Your task to perform on an android device: When is my next meeting? Image 0: 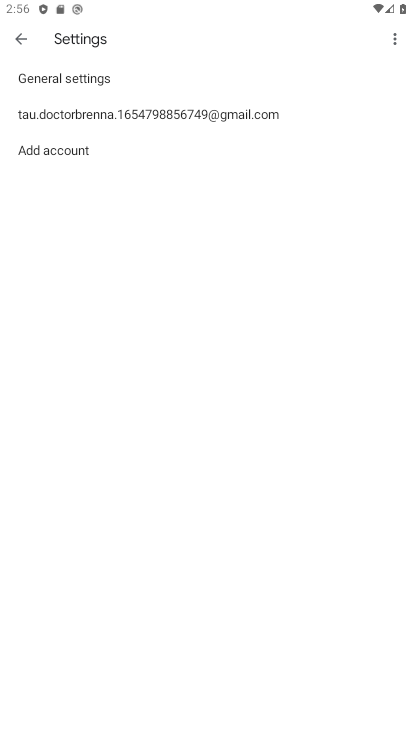
Step 0: press home button
Your task to perform on an android device: When is my next meeting? Image 1: 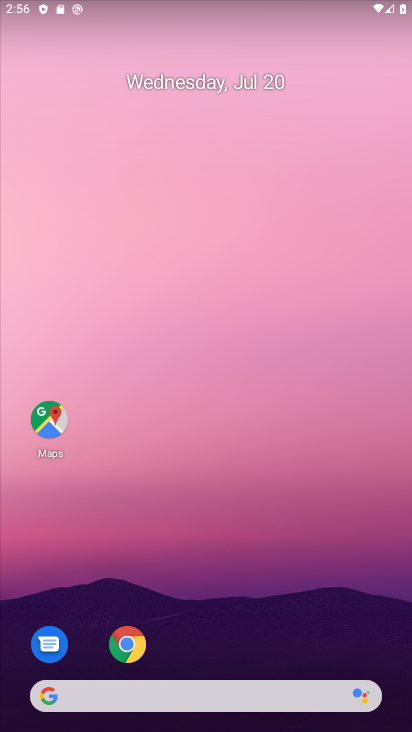
Step 1: drag from (216, 517) to (216, 255)
Your task to perform on an android device: When is my next meeting? Image 2: 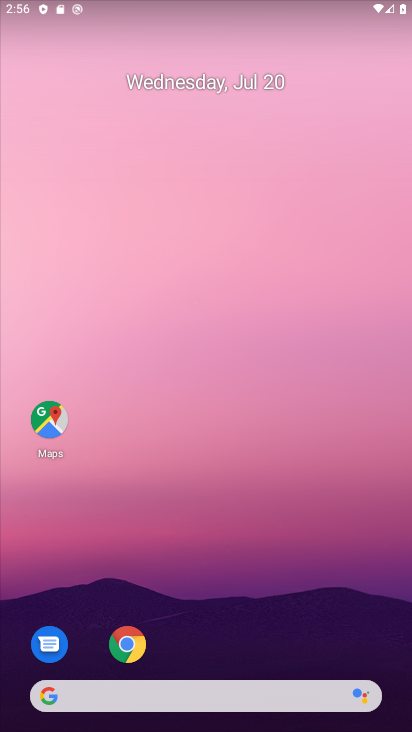
Step 2: drag from (240, 607) to (240, 205)
Your task to perform on an android device: When is my next meeting? Image 3: 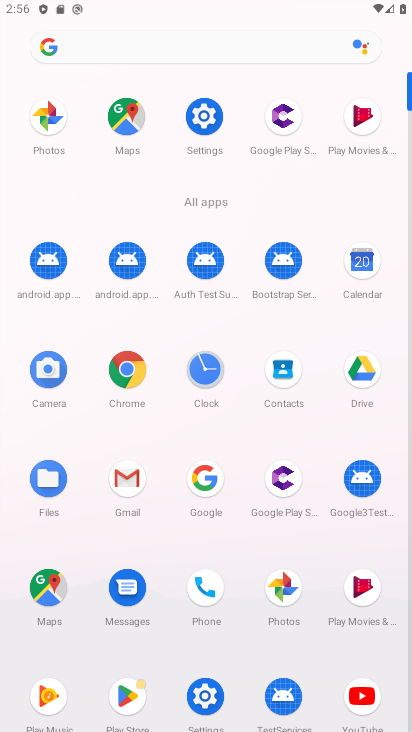
Step 3: click (362, 270)
Your task to perform on an android device: When is my next meeting? Image 4: 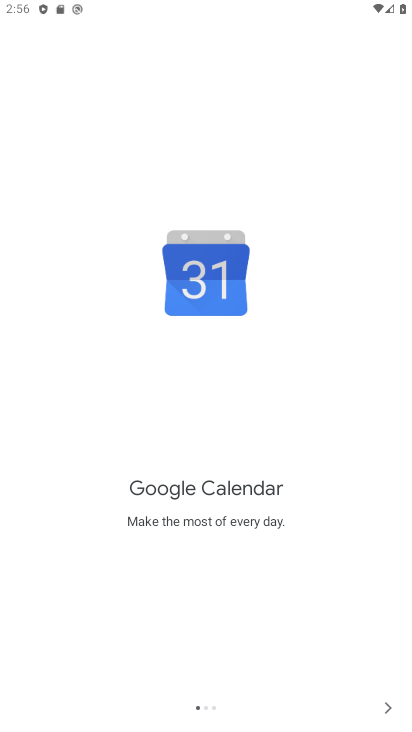
Step 4: click (392, 714)
Your task to perform on an android device: When is my next meeting? Image 5: 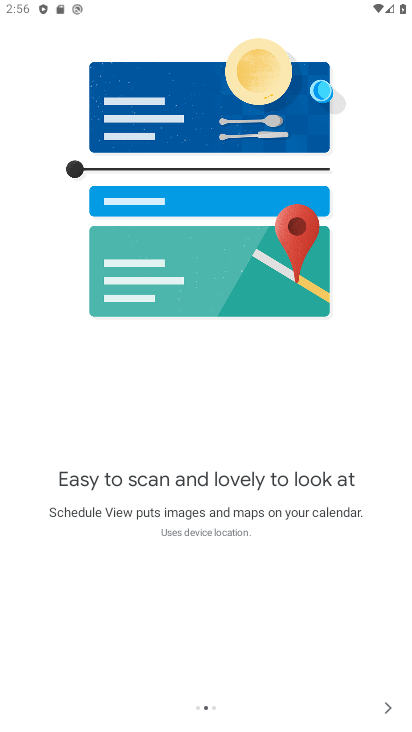
Step 5: click (389, 705)
Your task to perform on an android device: When is my next meeting? Image 6: 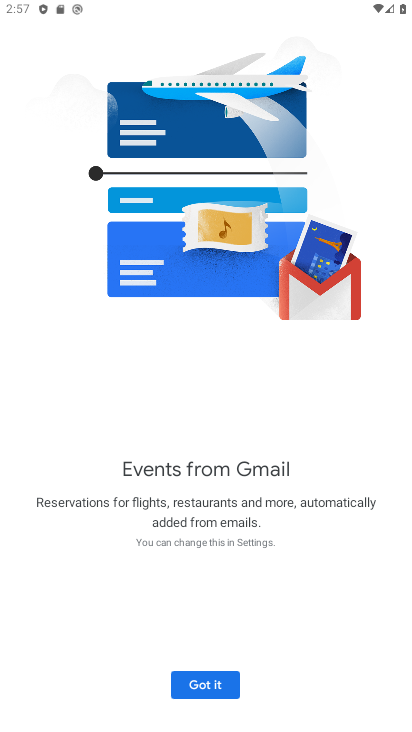
Step 6: click (194, 688)
Your task to perform on an android device: When is my next meeting? Image 7: 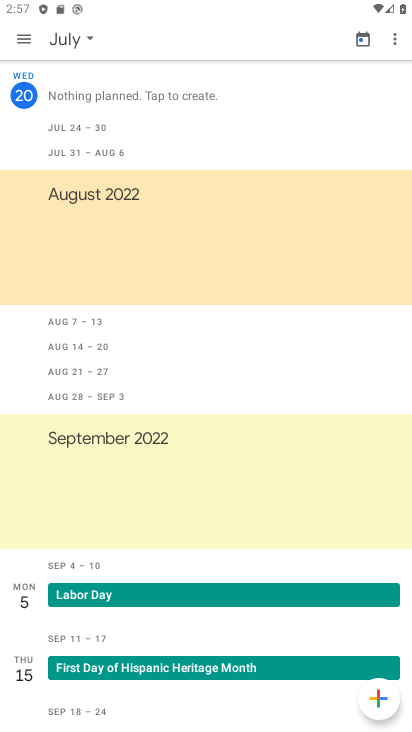
Step 7: click (78, 35)
Your task to perform on an android device: When is my next meeting? Image 8: 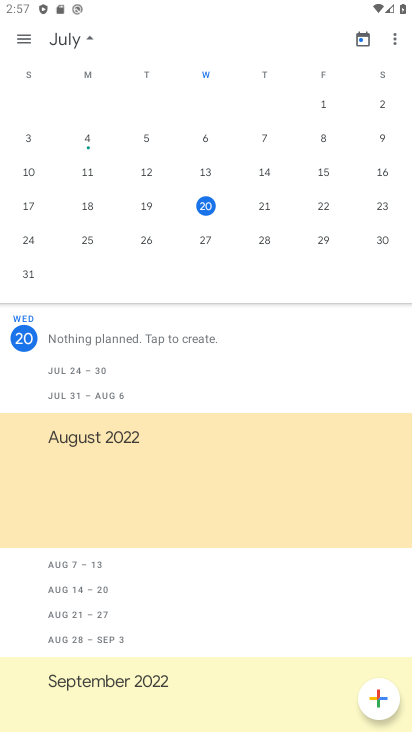
Step 8: click (24, 41)
Your task to perform on an android device: When is my next meeting? Image 9: 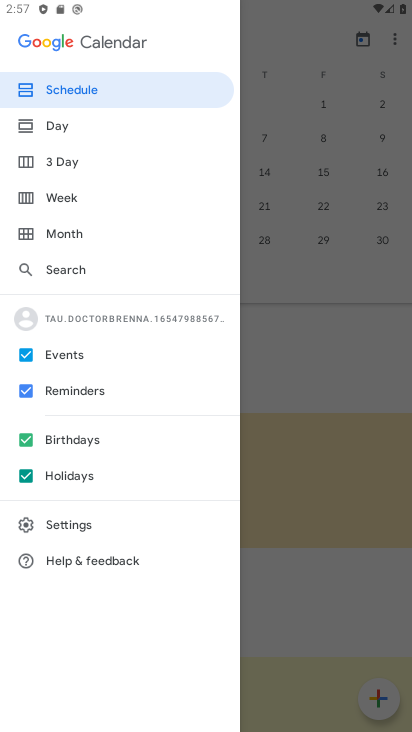
Step 9: click (49, 94)
Your task to perform on an android device: When is my next meeting? Image 10: 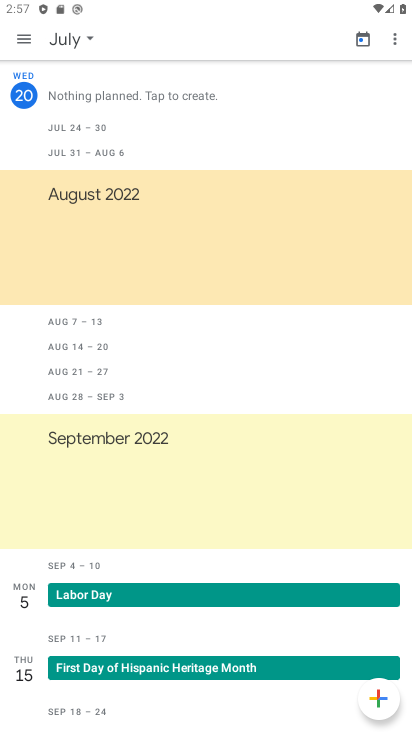
Step 10: task complete